Your task to perform on an android device: change text size in settings app Image 0: 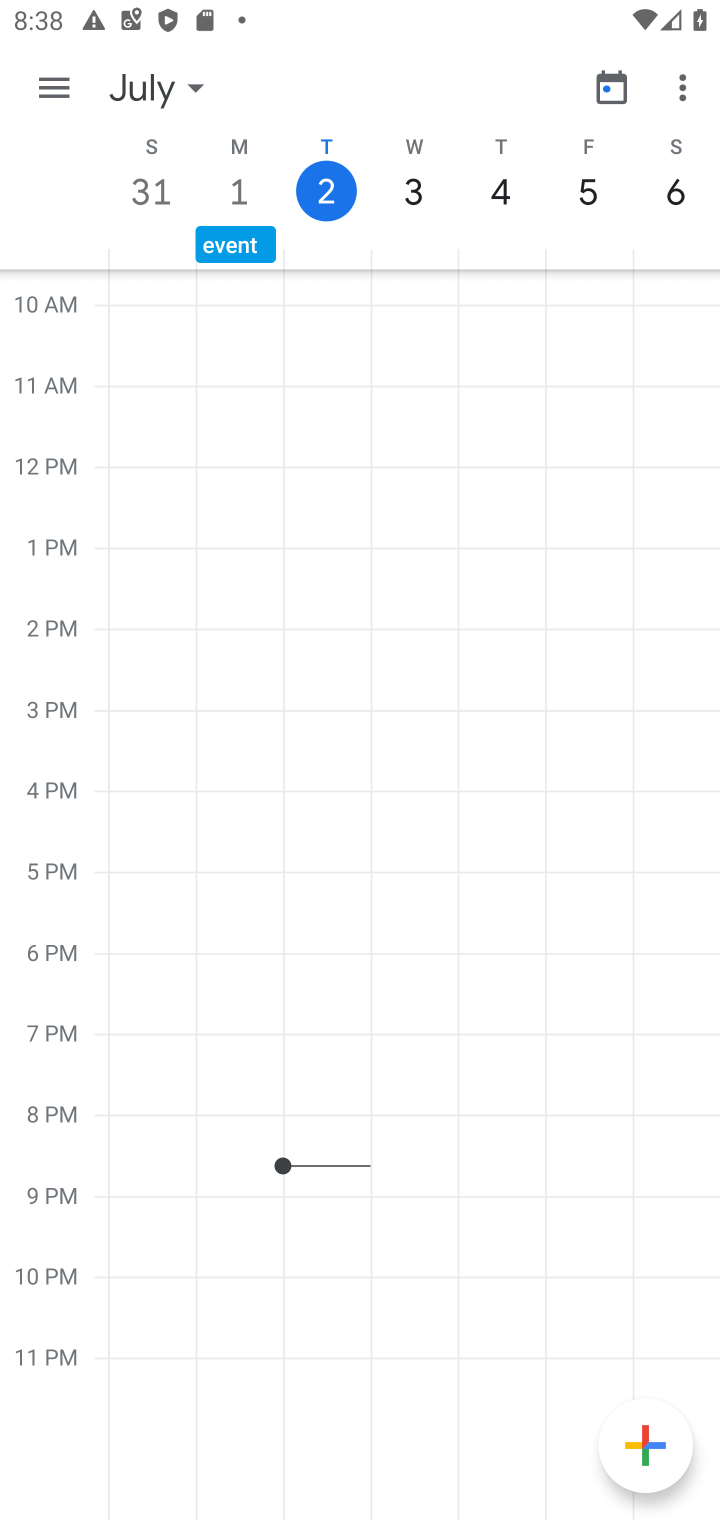
Step 0: press home button
Your task to perform on an android device: change text size in settings app Image 1: 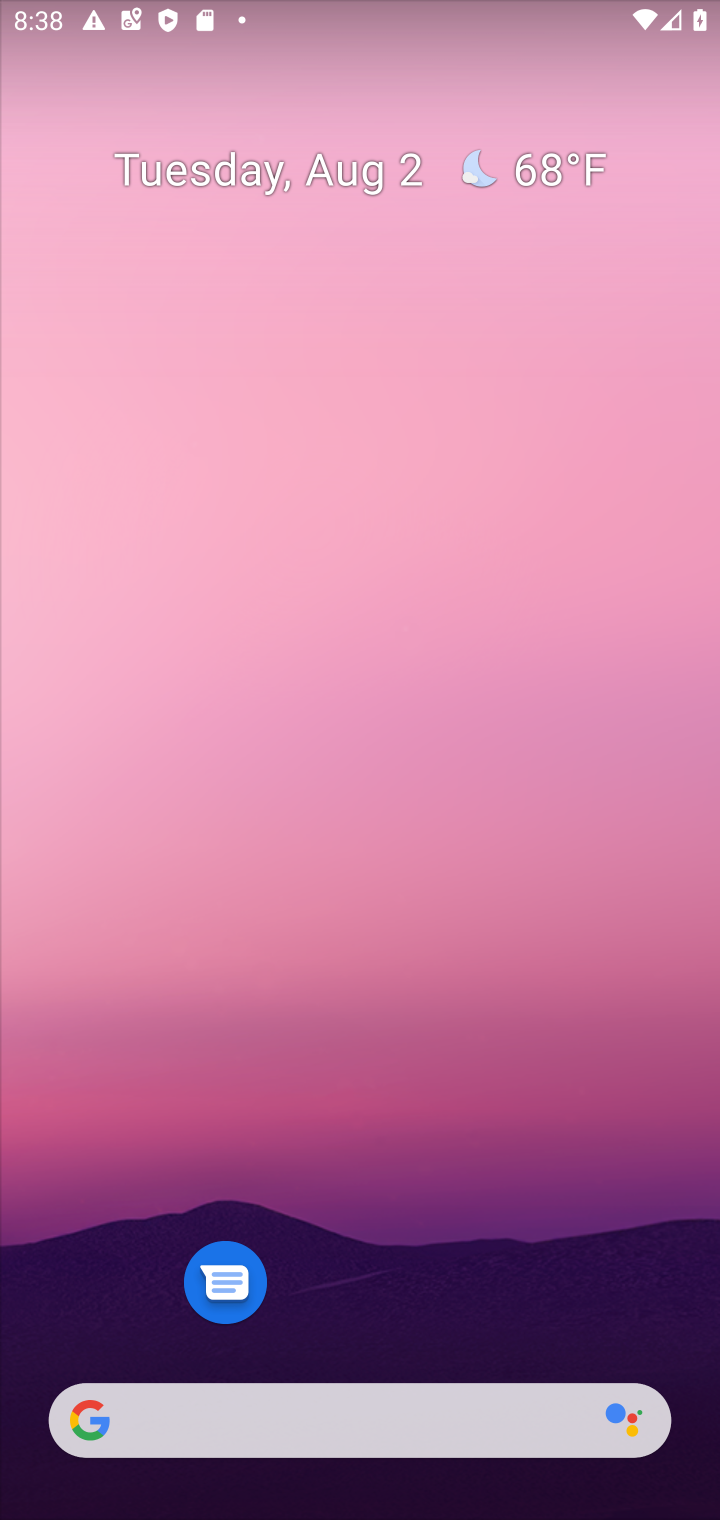
Step 1: drag from (382, 1367) to (258, 95)
Your task to perform on an android device: change text size in settings app Image 2: 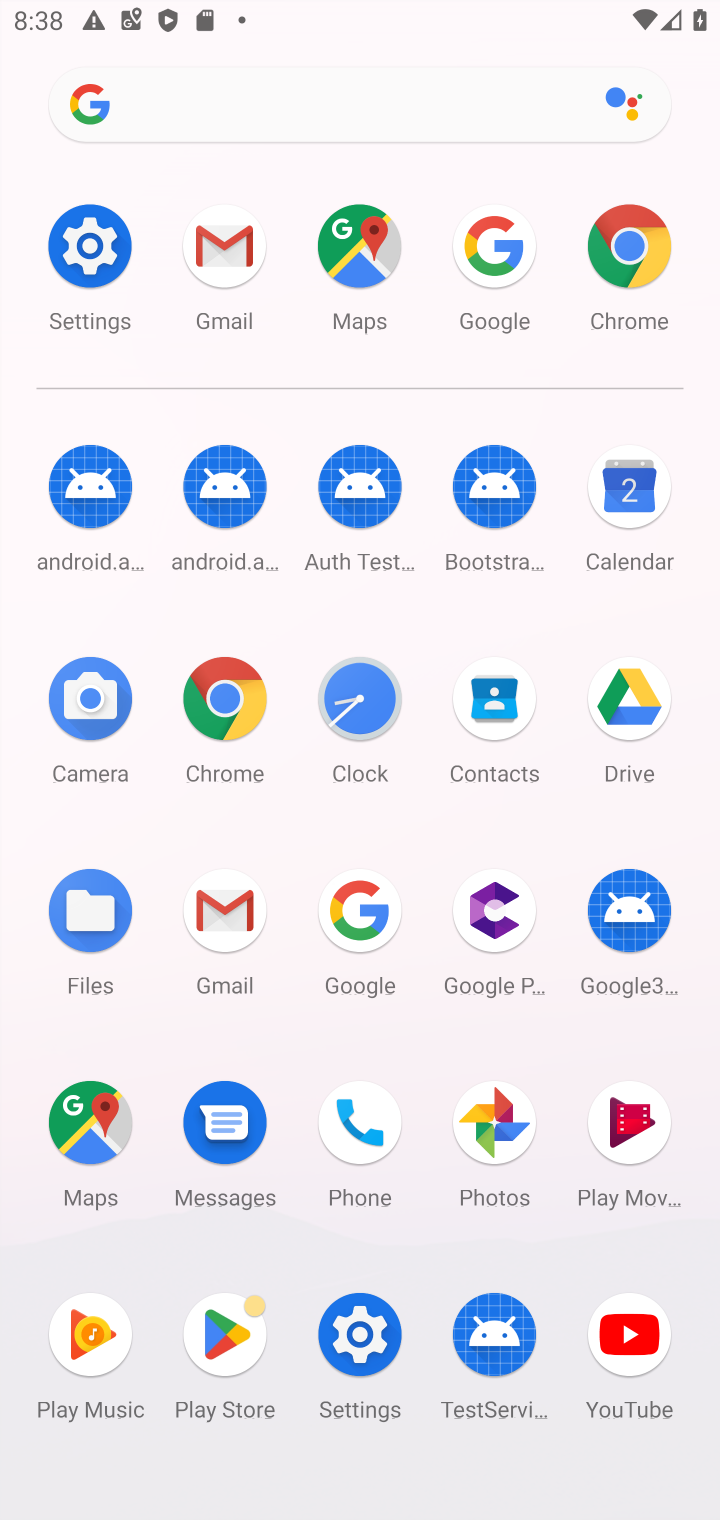
Step 2: click (88, 250)
Your task to perform on an android device: change text size in settings app Image 3: 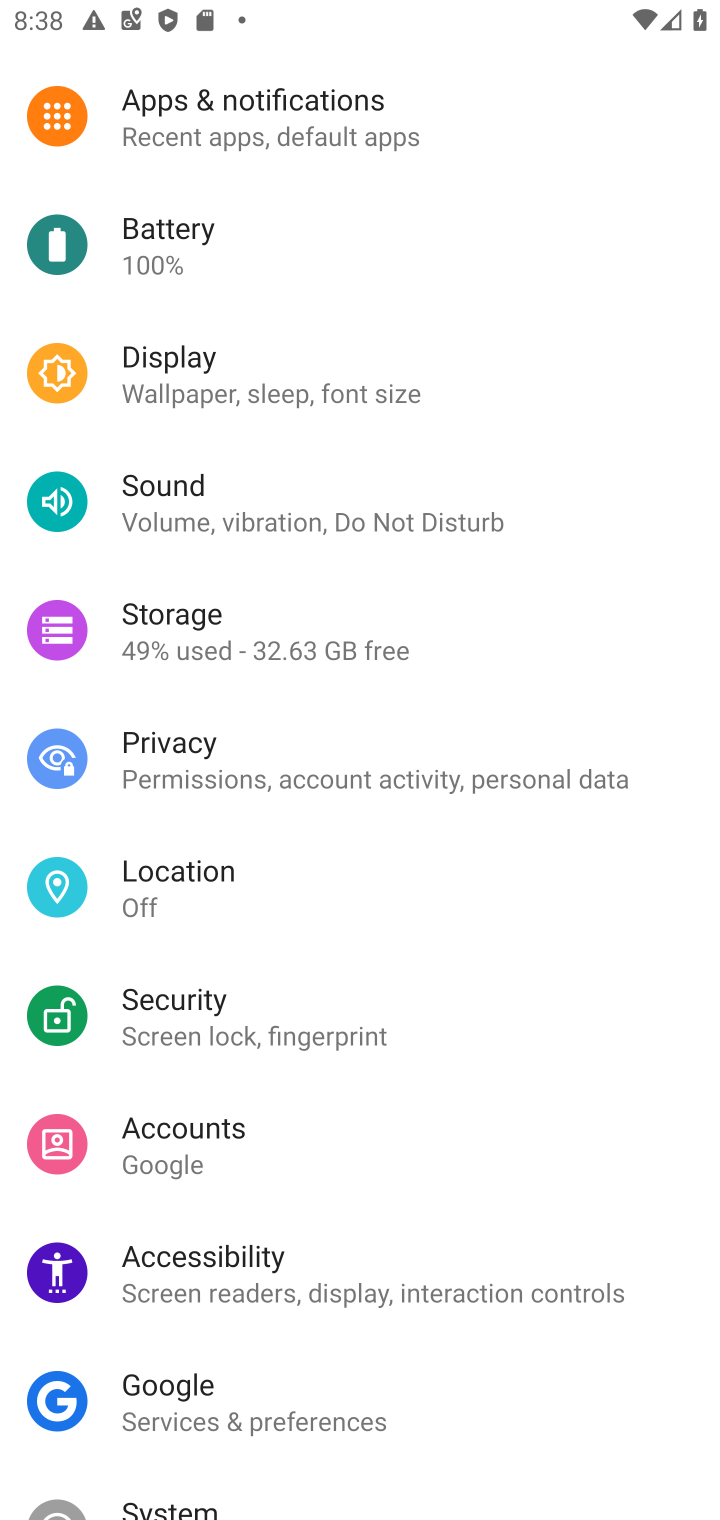
Step 3: click (218, 400)
Your task to perform on an android device: change text size in settings app Image 4: 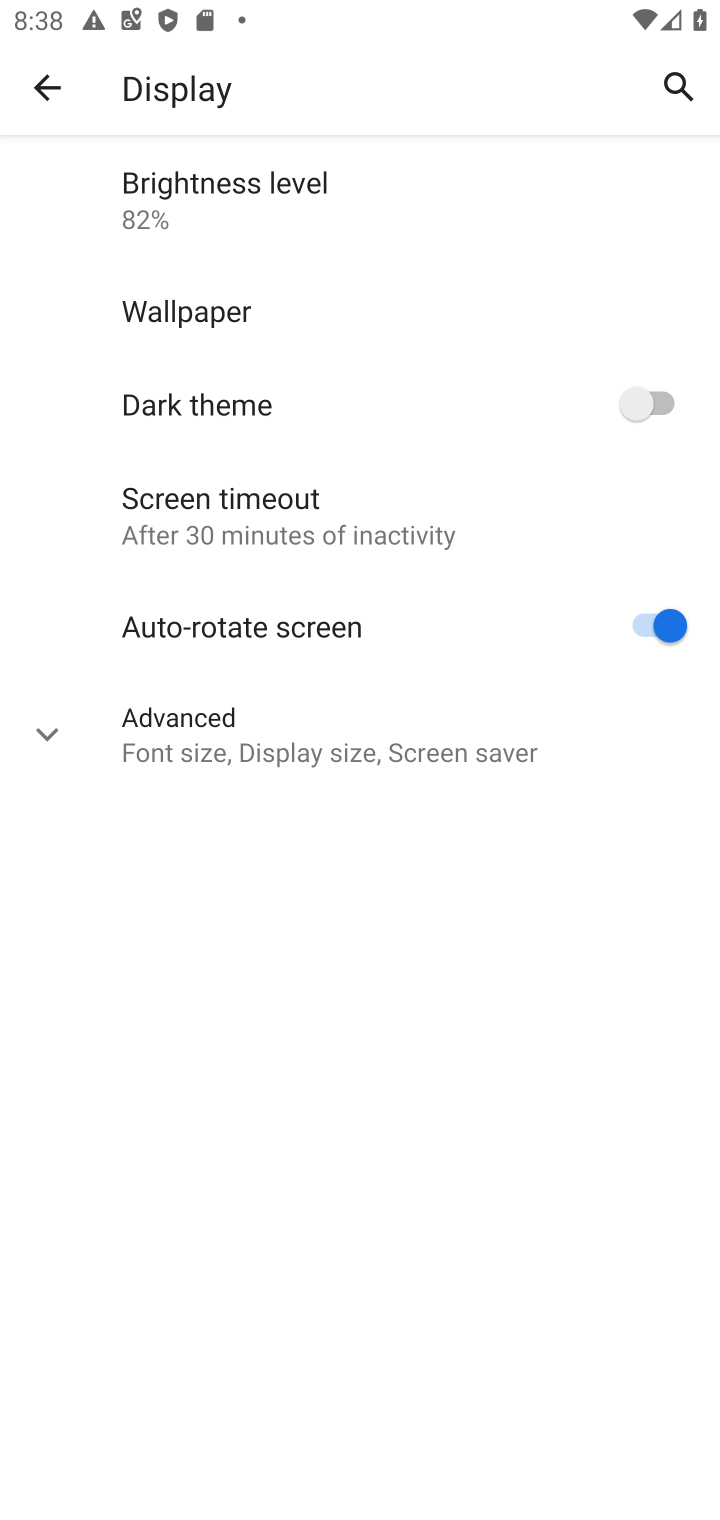
Step 4: click (247, 735)
Your task to perform on an android device: change text size in settings app Image 5: 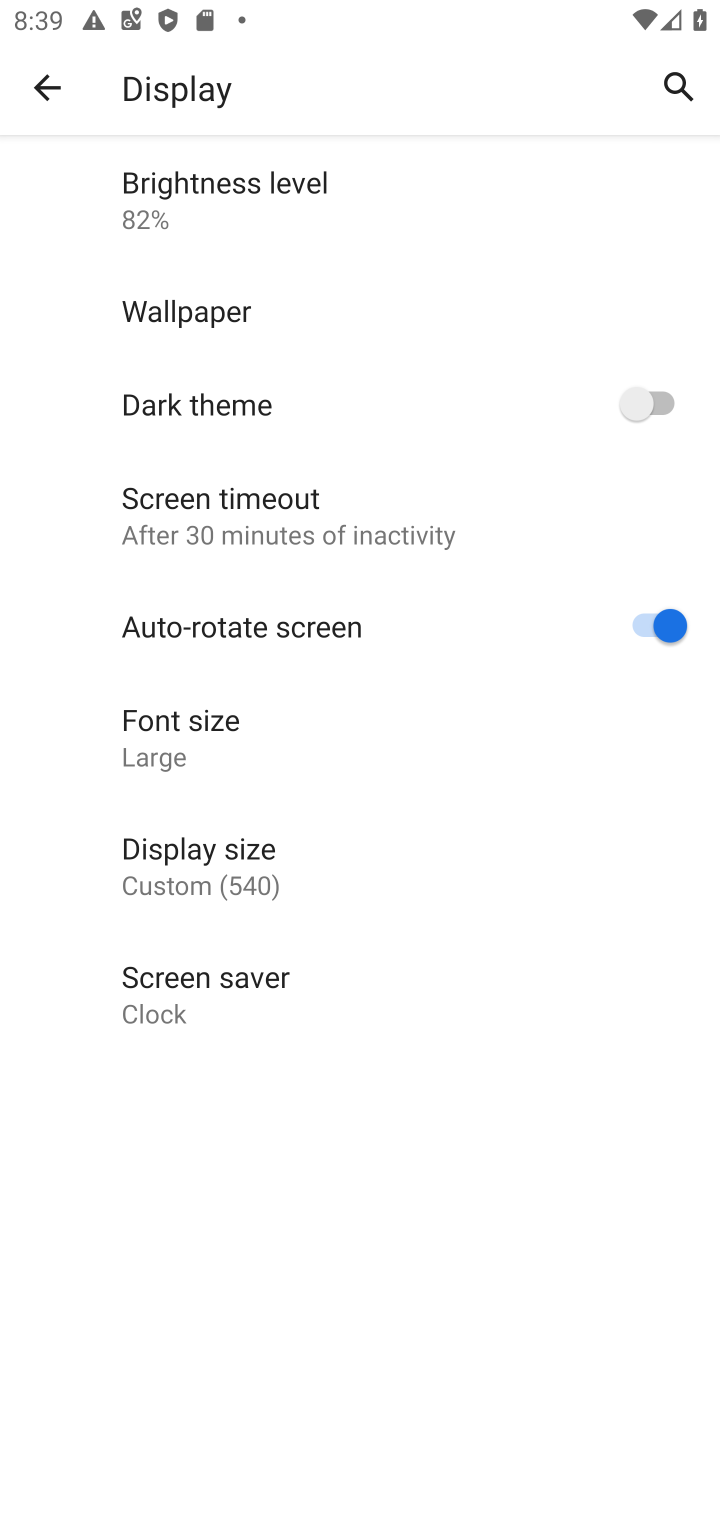
Step 5: click (232, 837)
Your task to perform on an android device: change text size in settings app Image 6: 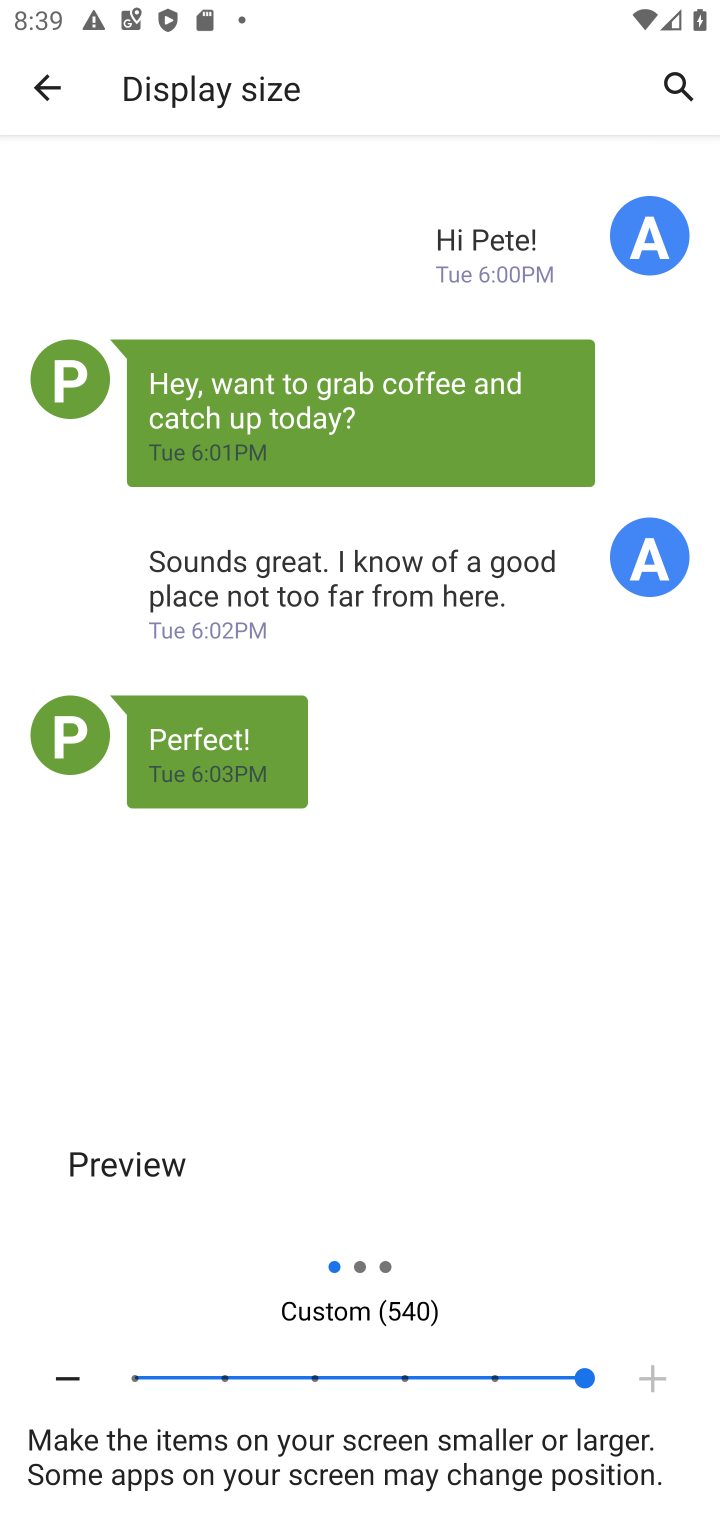
Step 6: click (46, 99)
Your task to perform on an android device: change text size in settings app Image 7: 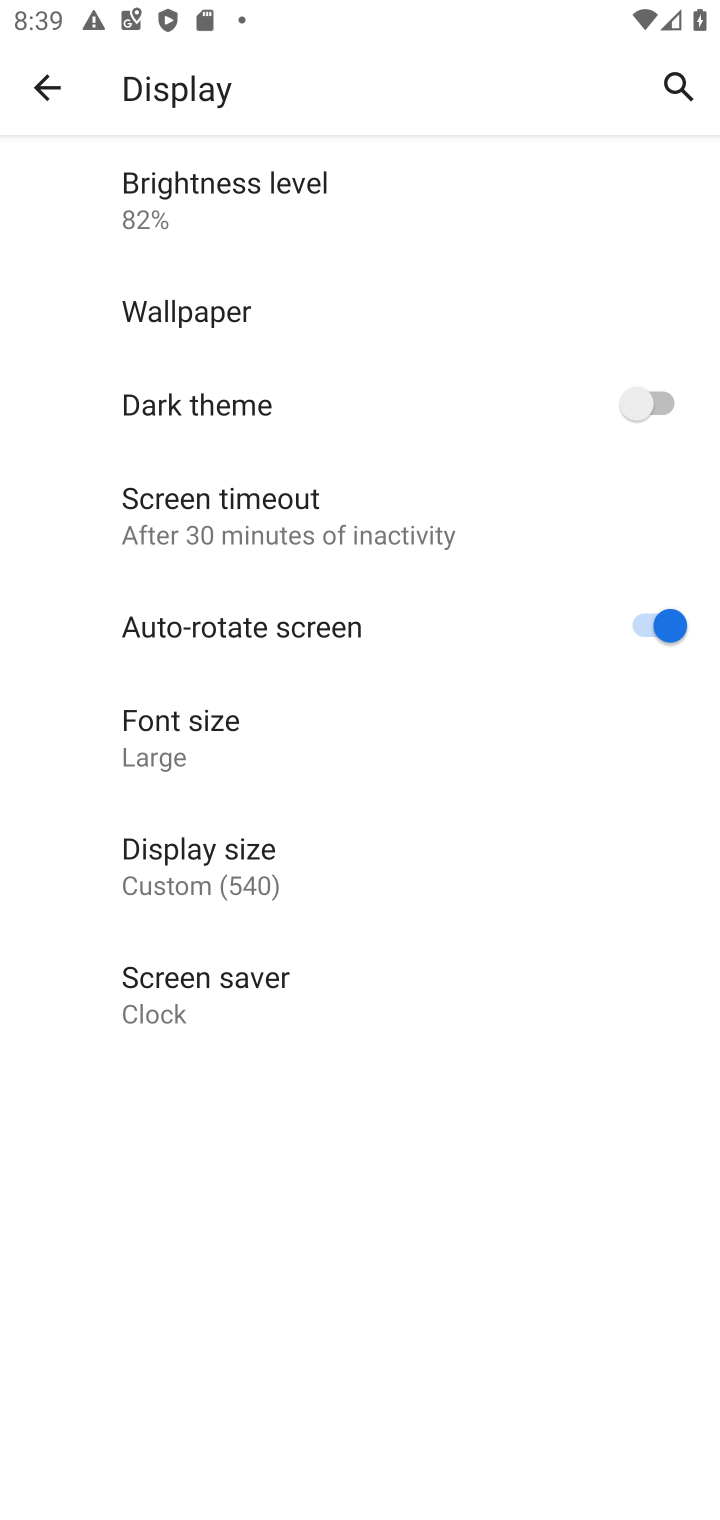
Step 7: click (171, 729)
Your task to perform on an android device: change text size in settings app Image 8: 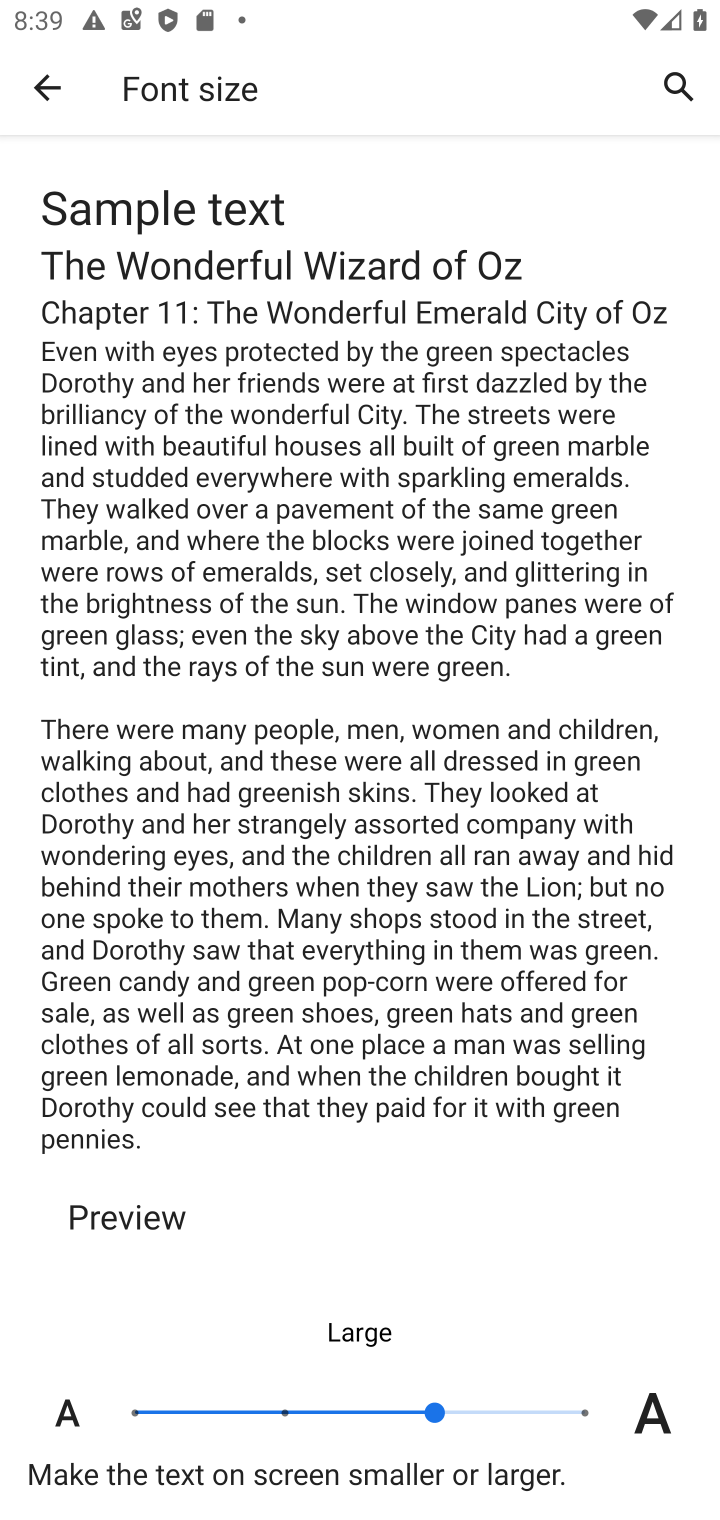
Step 8: click (295, 1422)
Your task to perform on an android device: change text size in settings app Image 9: 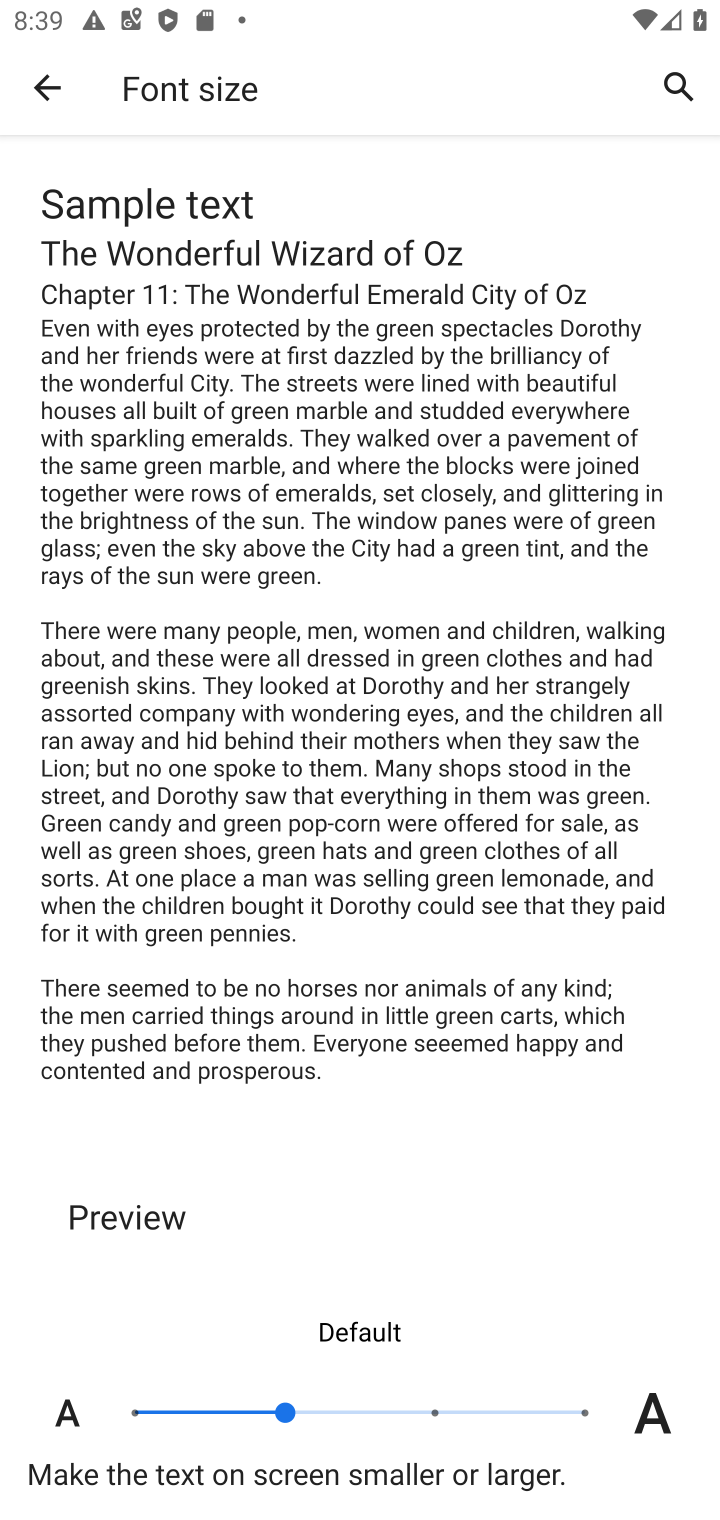
Step 9: click (581, 1400)
Your task to perform on an android device: change text size in settings app Image 10: 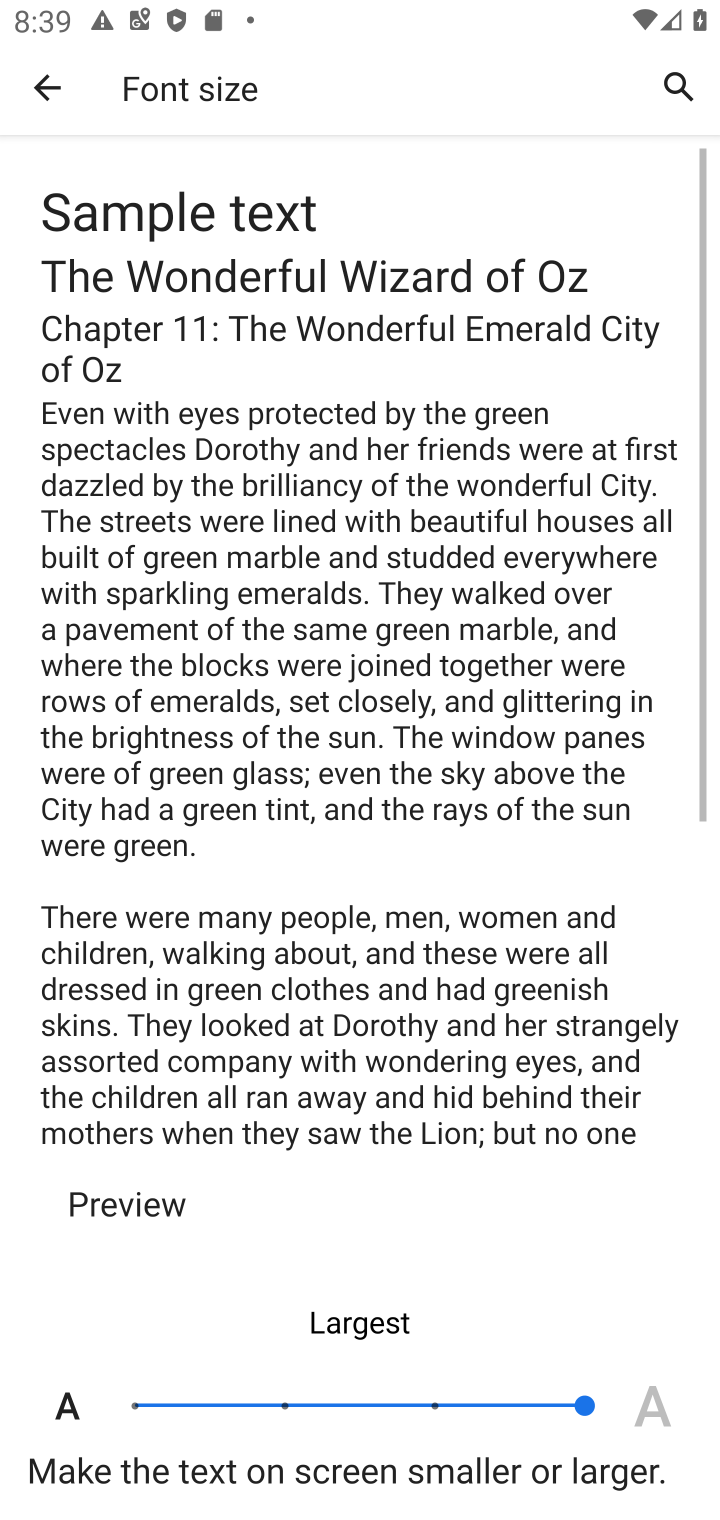
Step 10: task complete